Your task to perform on an android device: empty trash in the gmail app Image 0: 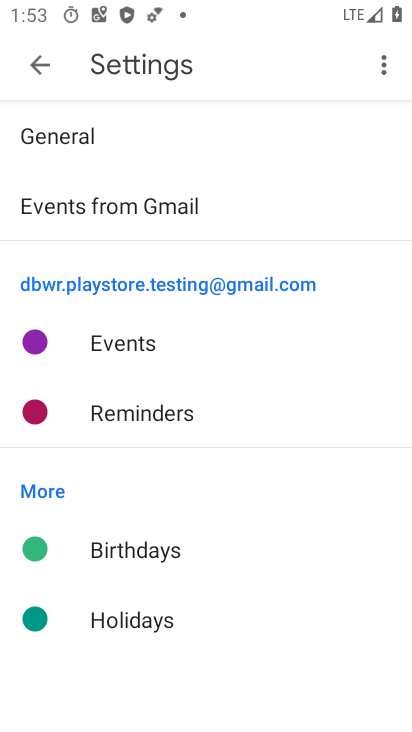
Step 0: press home button
Your task to perform on an android device: empty trash in the gmail app Image 1: 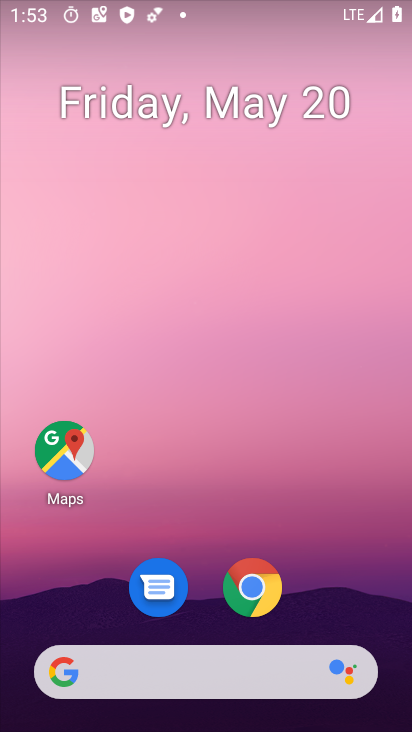
Step 1: drag from (335, 535) to (340, 157)
Your task to perform on an android device: empty trash in the gmail app Image 2: 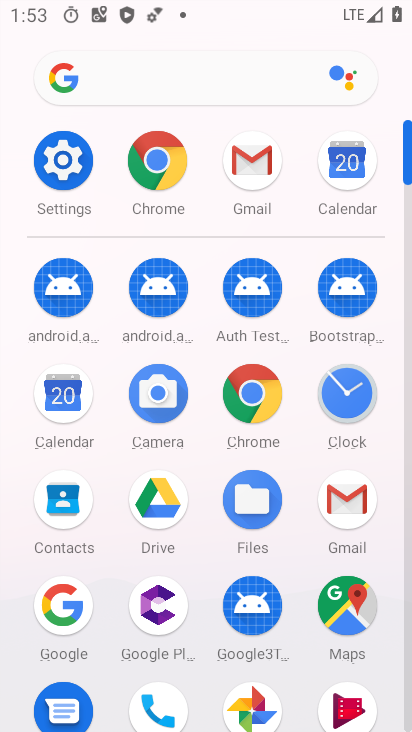
Step 2: click (264, 160)
Your task to perform on an android device: empty trash in the gmail app Image 3: 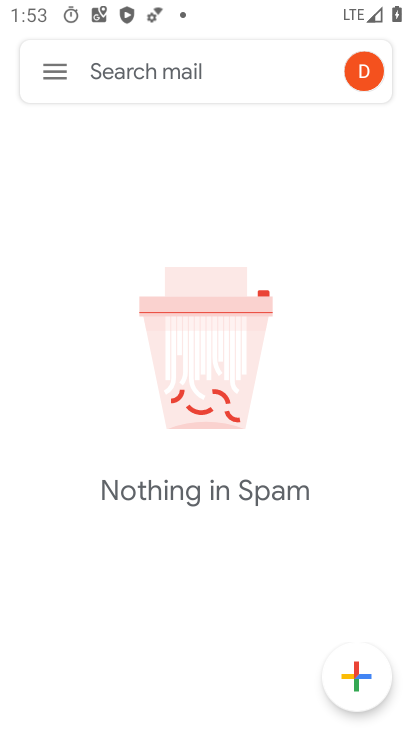
Step 3: click (39, 74)
Your task to perform on an android device: empty trash in the gmail app Image 4: 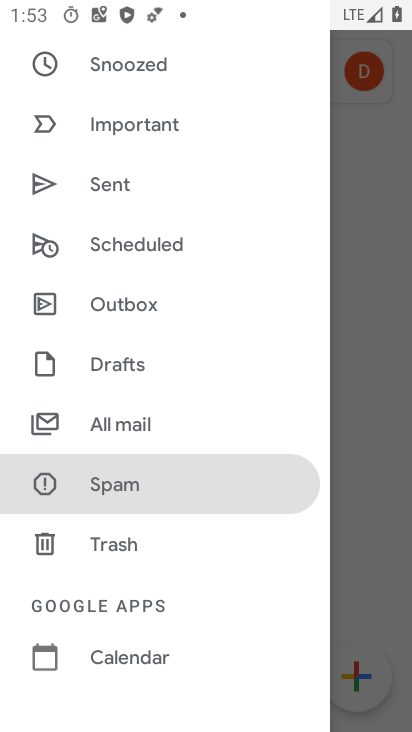
Step 4: click (145, 547)
Your task to perform on an android device: empty trash in the gmail app Image 5: 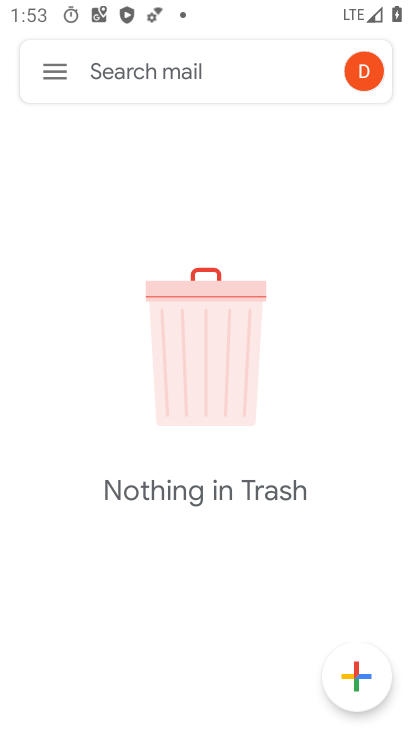
Step 5: task complete